Your task to perform on an android device: turn on sleep mode Image 0: 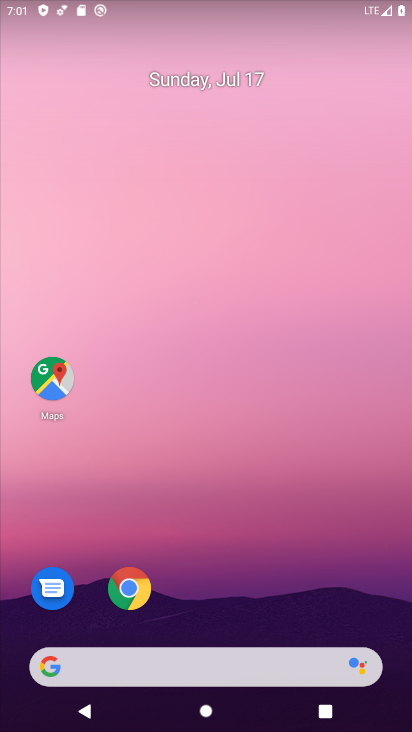
Step 0: drag from (376, 647) to (239, 56)
Your task to perform on an android device: turn on sleep mode Image 1: 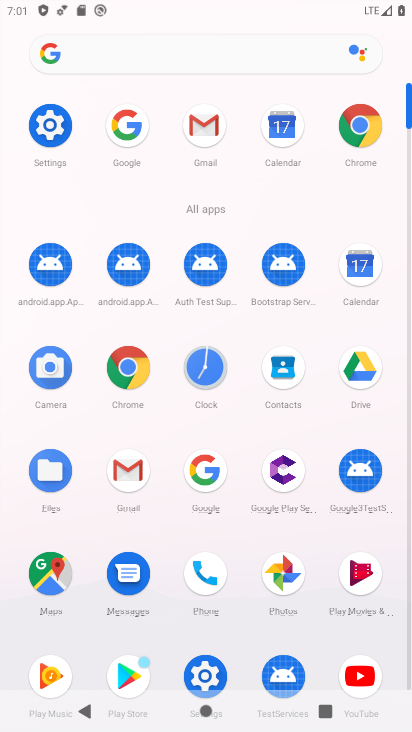
Step 1: click (41, 126)
Your task to perform on an android device: turn on sleep mode Image 2: 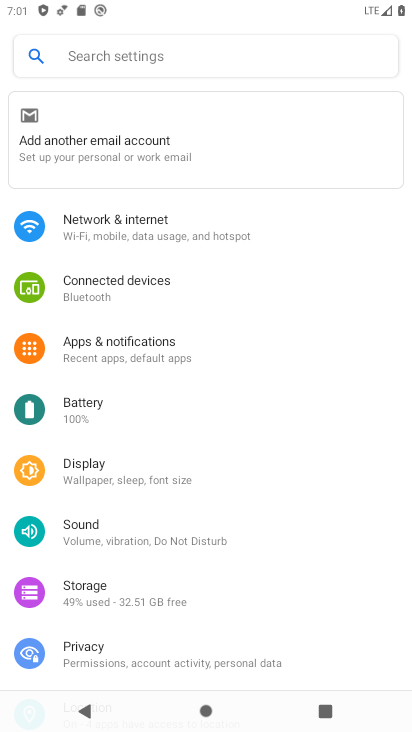
Step 2: task complete